Your task to perform on an android device: change alarm snooze length Image 0: 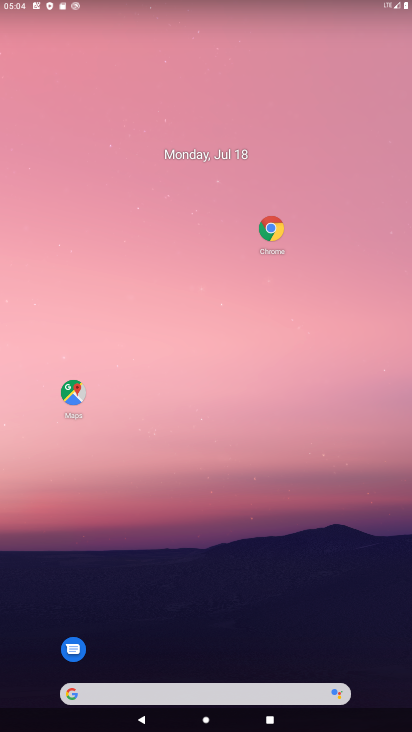
Step 0: drag from (141, 595) to (192, 104)
Your task to perform on an android device: change alarm snooze length Image 1: 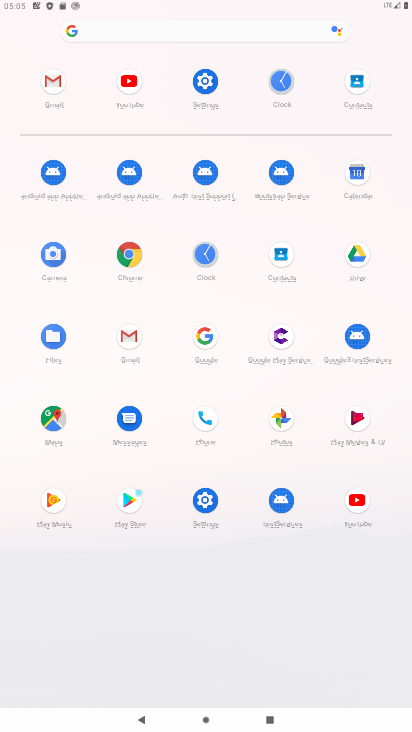
Step 1: click (207, 83)
Your task to perform on an android device: change alarm snooze length Image 2: 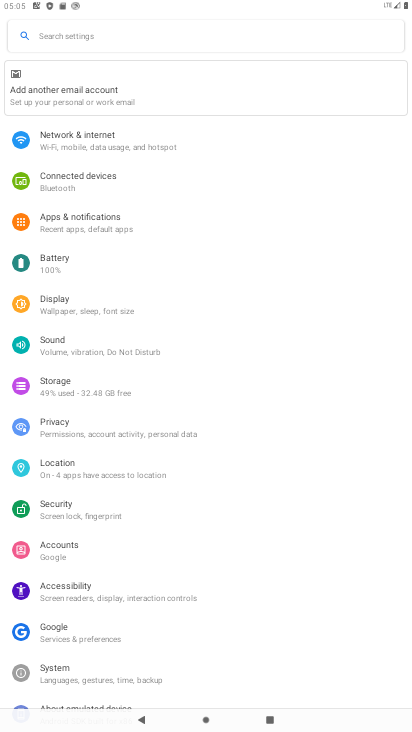
Step 2: press home button
Your task to perform on an android device: change alarm snooze length Image 3: 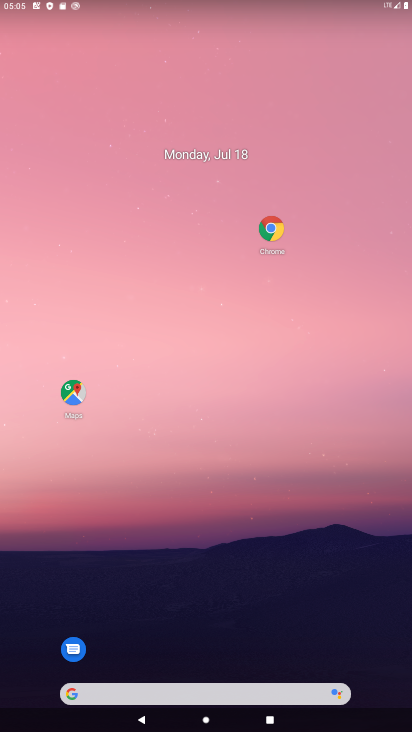
Step 3: drag from (219, 594) to (233, 66)
Your task to perform on an android device: change alarm snooze length Image 4: 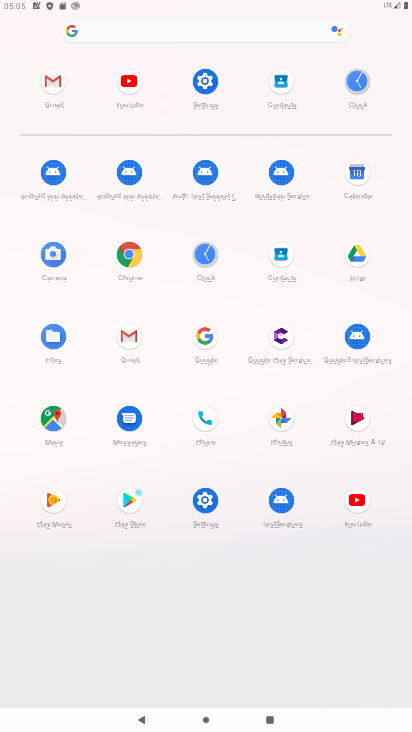
Step 4: click (210, 261)
Your task to perform on an android device: change alarm snooze length Image 5: 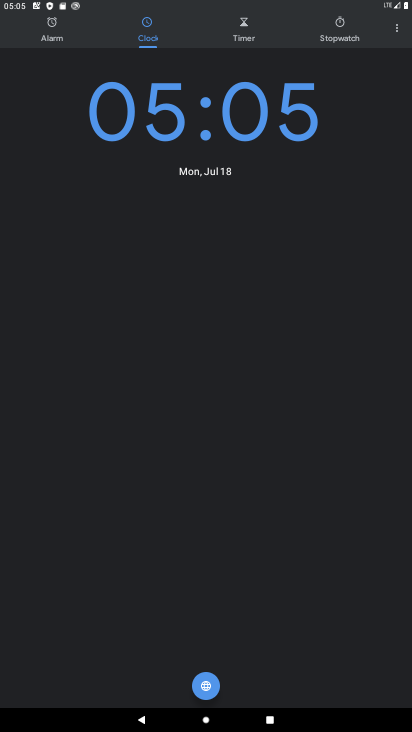
Step 5: click (393, 30)
Your task to perform on an android device: change alarm snooze length Image 6: 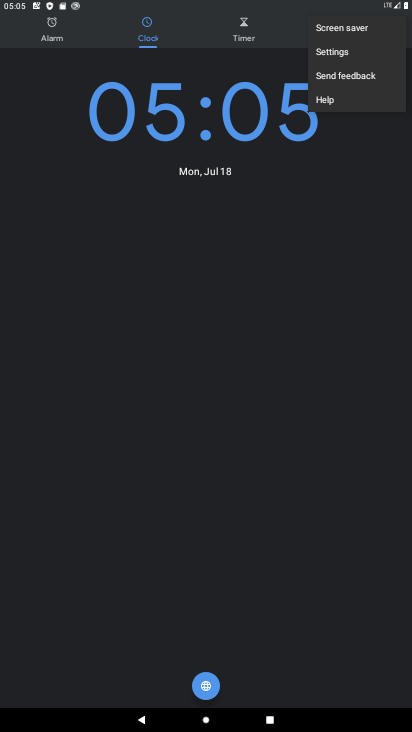
Step 6: click (335, 56)
Your task to perform on an android device: change alarm snooze length Image 7: 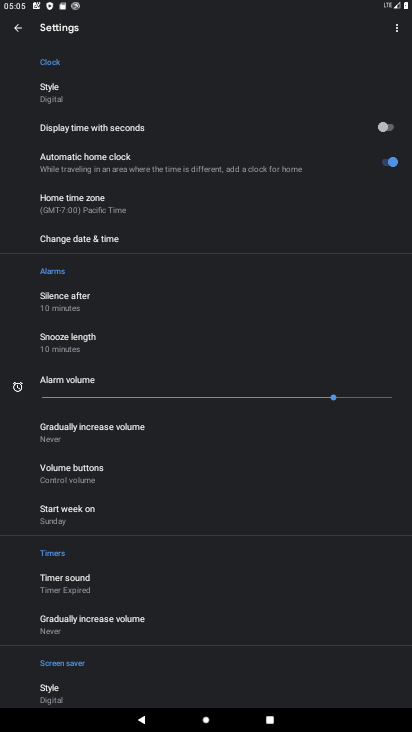
Step 7: click (99, 354)
Your task to perform on an android device: change alarm snooze length Image 8: 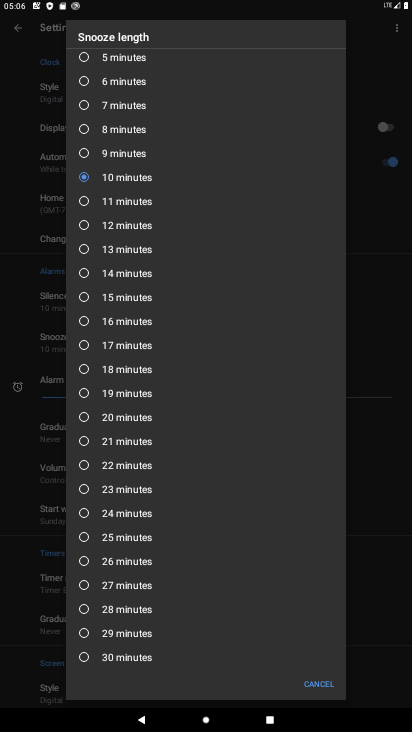
Step 8: click (123, 660)
Your task to perform on an android device: change alarm snooze length Image 9: 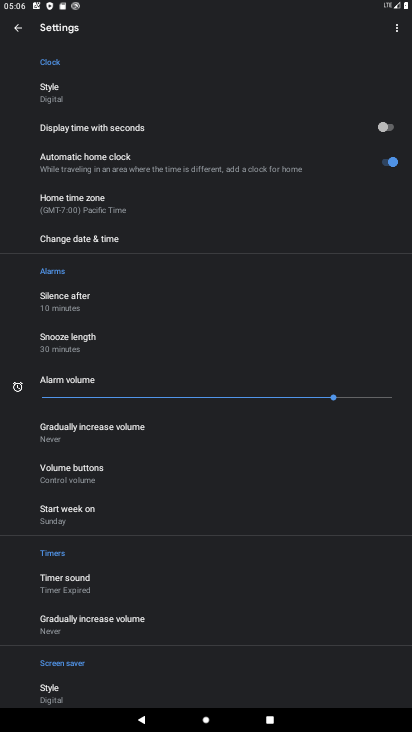
Step 9: task complete